Your task to perform on an android device: star an email in the gmail app Image 0: 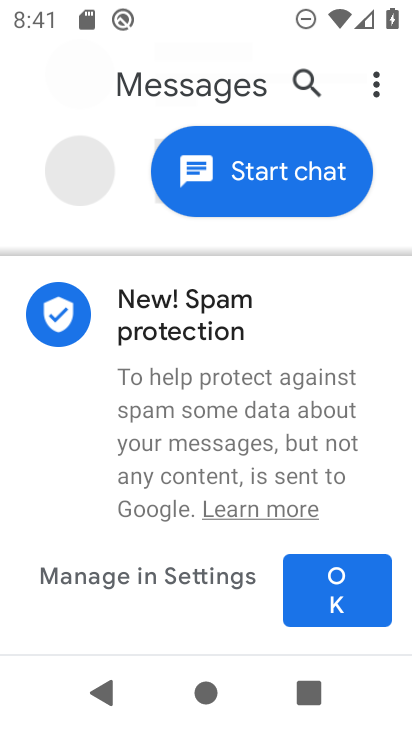
Step 0: press home button
Your task to perform on an android device: star an email in the gmail app Image 1: 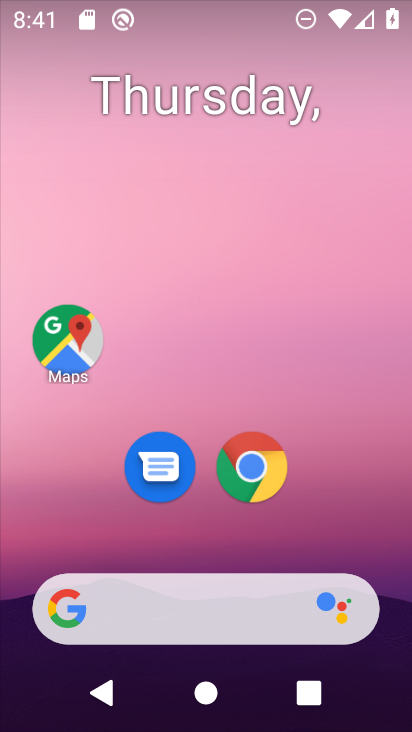
Step 1: drag from (352, 509) to (255, 19)
Your task to perform on an android device: star an email in the gmail app Image 2: 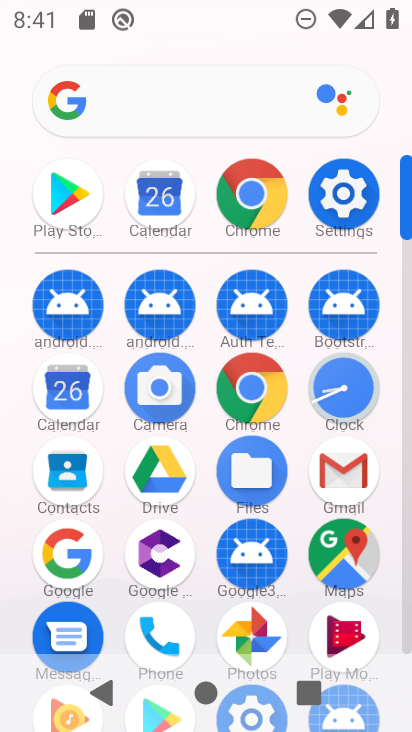
Step 2: click (328, 480)
Your task to perform on an android device: star an email in the gmail app Image 3: 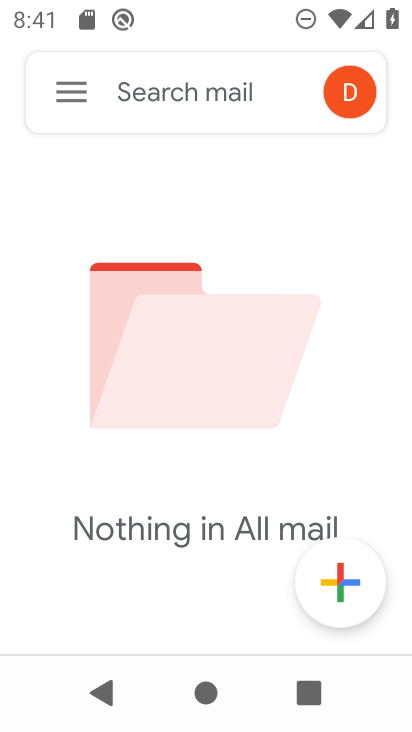
Step 3: click (70, 94)
Your task to perform on an android device: star an email in the gmail app Image 4: 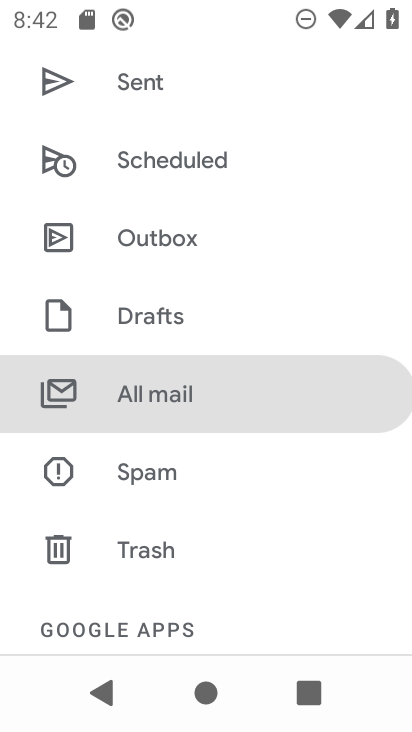
Step 4: task complete